Your task to perform on an android device: Open network settings Image 0: 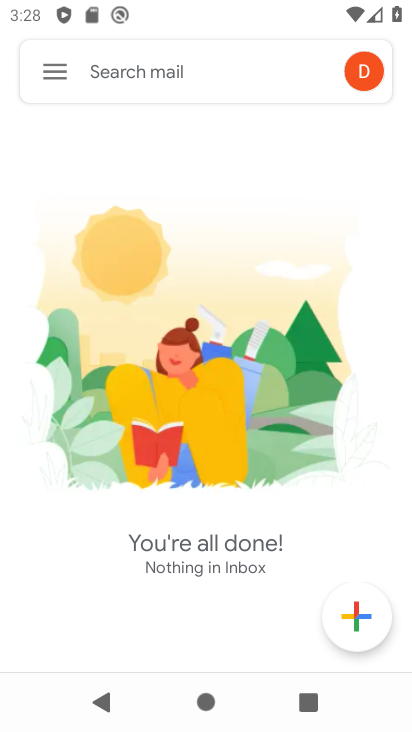
Step 0: press home button
Your task to perform on an android device: Open network settings Image 1: 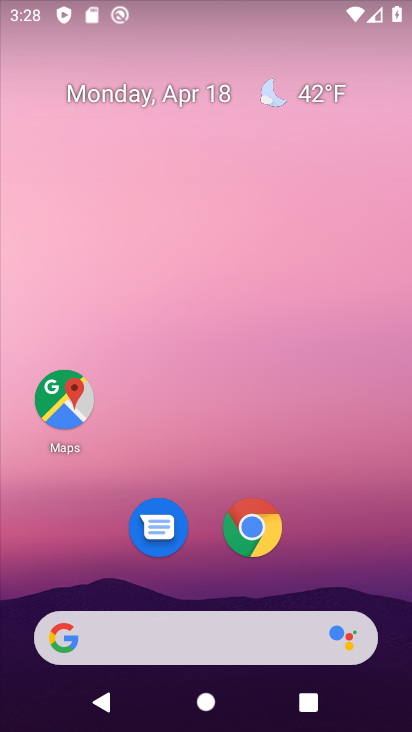
Step 1: drag from (387, 592) to (345, 128)
Your task to perform on an android device: Open network settings Image 2: 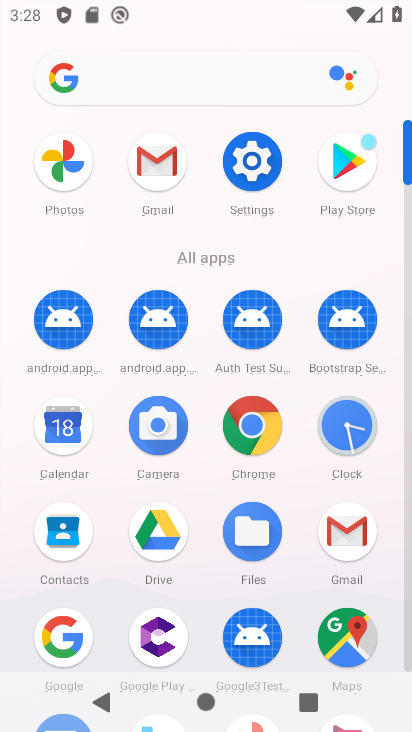
Step 2: click (407, 651)
Your task to perform on an android device: Open network settings Image 3: 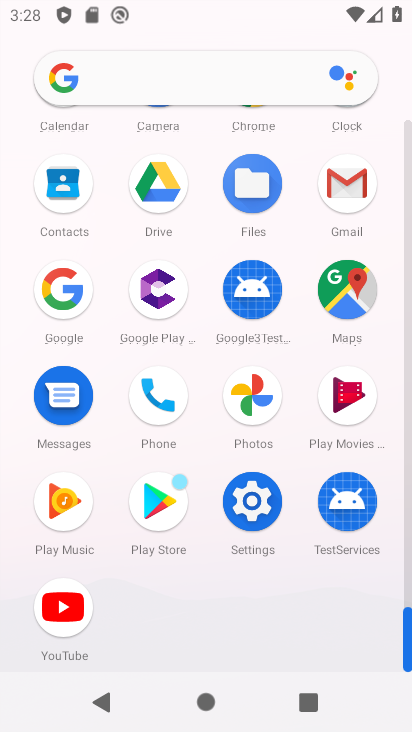
Step 3: click (250, 502)
Your task to perform on an android device: Open network settings Image 4: 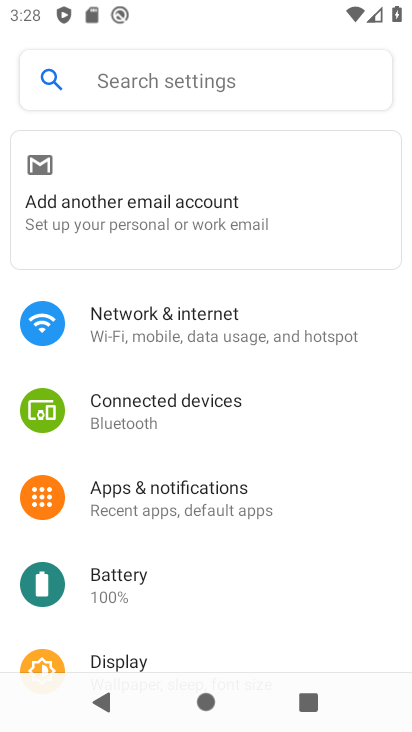
Step 4: click (145, 326)
Your task to perform on an android device: Open network settings Image 5: 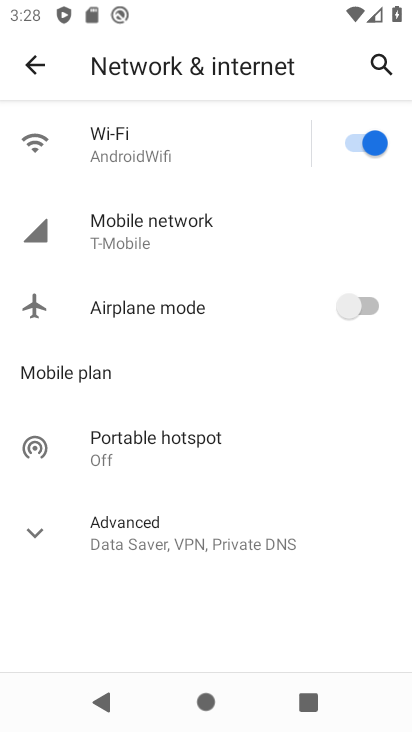
Step 5: click (145, 230)
Your task to perform on an android device: Open network settings Image 6: 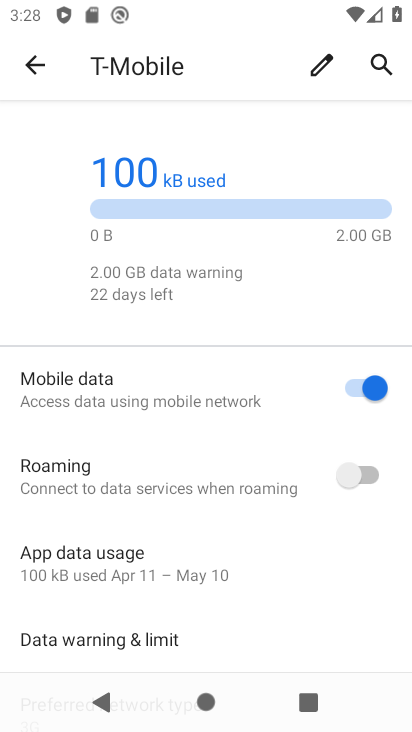
Step 6: drag from (202, 467) to (201, 160)
Your task to perform on an android device: Open network settings Image 7: 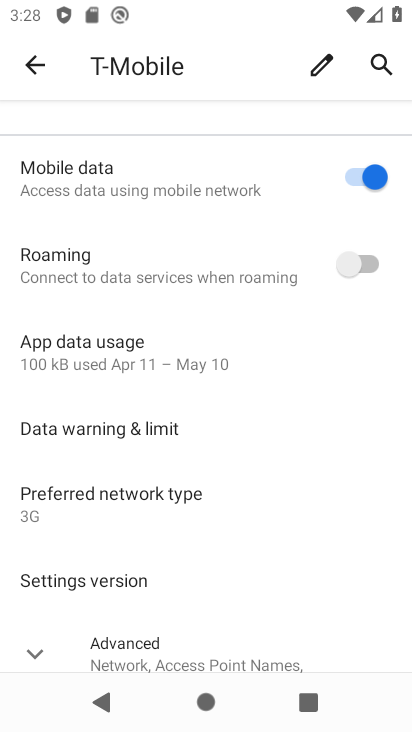
Step 7: click (32, 658)
Your task to perform on an android device: Open network settings Image 8: 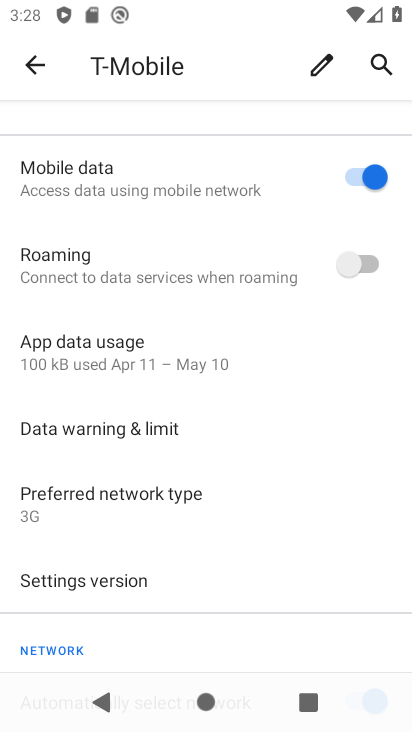
Step 8: task complete